Your task to perform on an android device: turn off notifications in google photos Image 0: 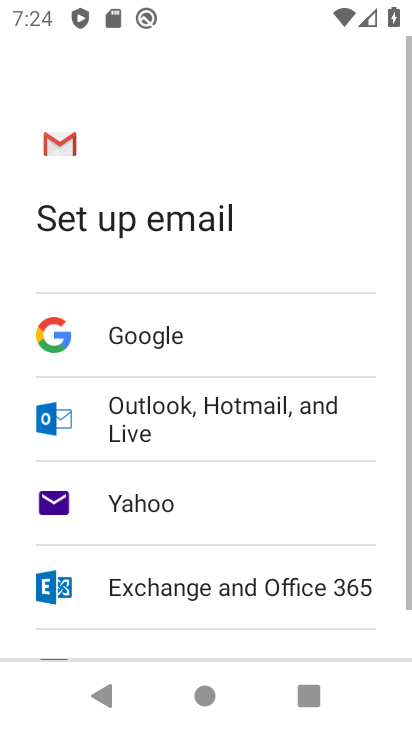
Step 0: press home button
Your task to perform on an android device: turn off notifications in google photos Image 1: 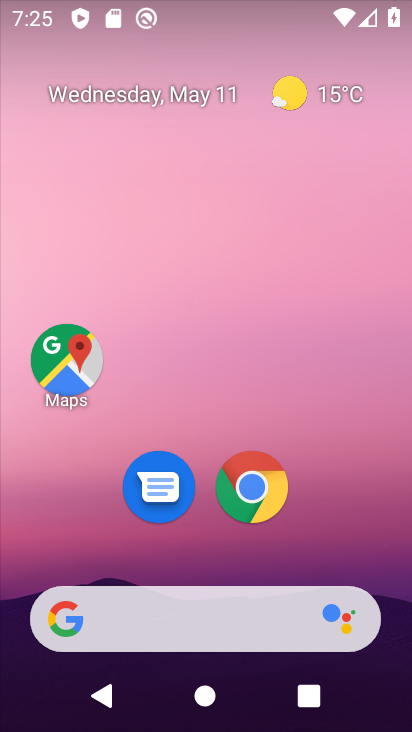
Step 1: drag from (235, 653) to (219, 172)
Your task to perform on an android device: turn off notifications in google photos Image 2: 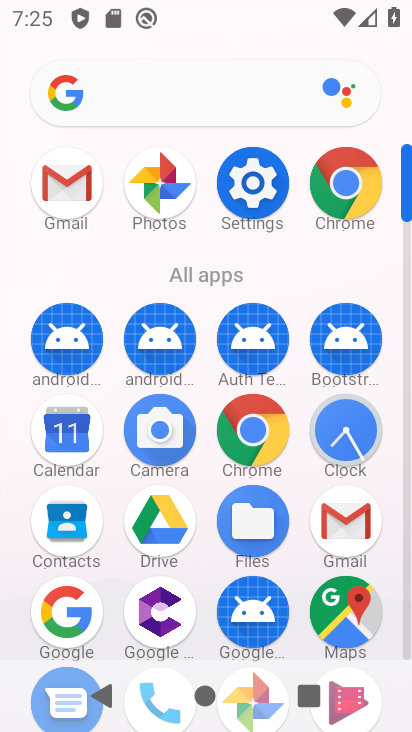
Step 2: click (267, 186)
Your task to perform on an android device: turn off notifications in google photos Image 3: 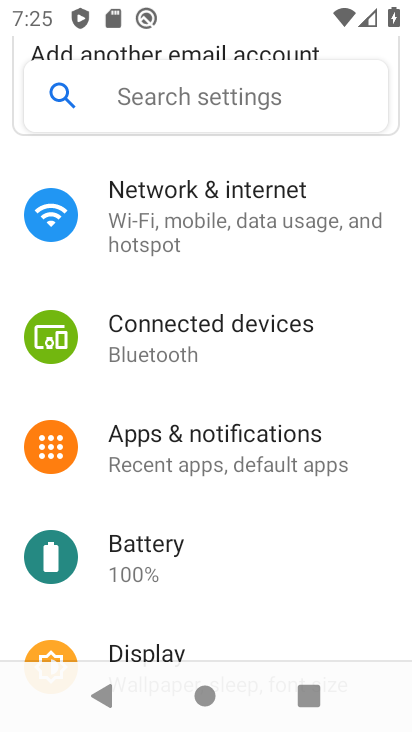
Step 3: press home button
Your task to perform on an android device: turn off notifications in google photos Image 4: 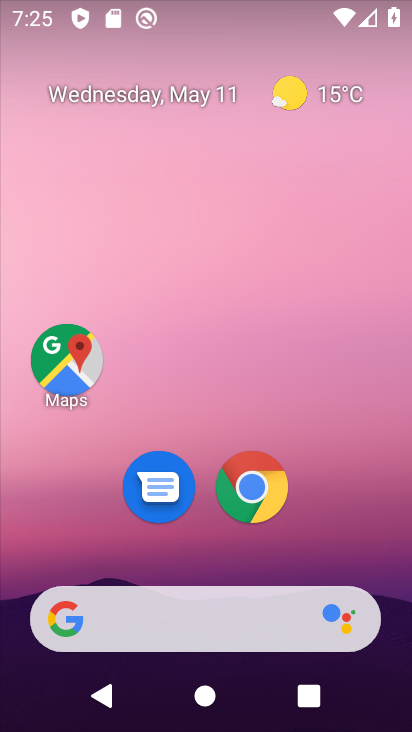
Step 4: drag from (215, 535) to (321, 74)
Your task to perform on an android device: turn off notifications in google photos Image 5: 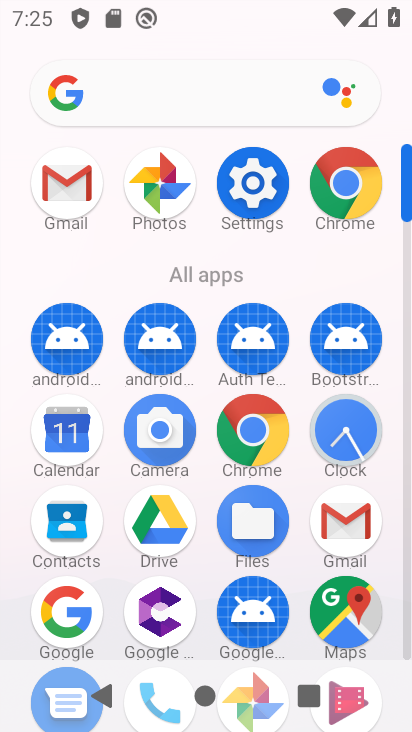
Step 5: drag from (198, 569) to (192, 401)
Your task to perform on an android device: turn off notifications in google photos Image 6: 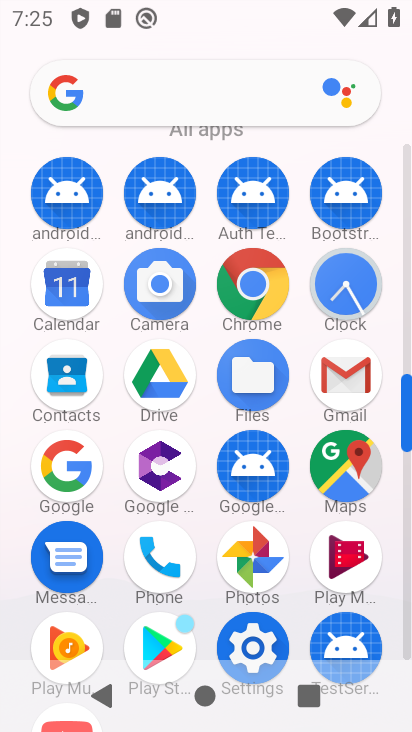
Step 6: click (258, 575)
Your task to perform on an android device: turn off notifications in google photos Image 7: 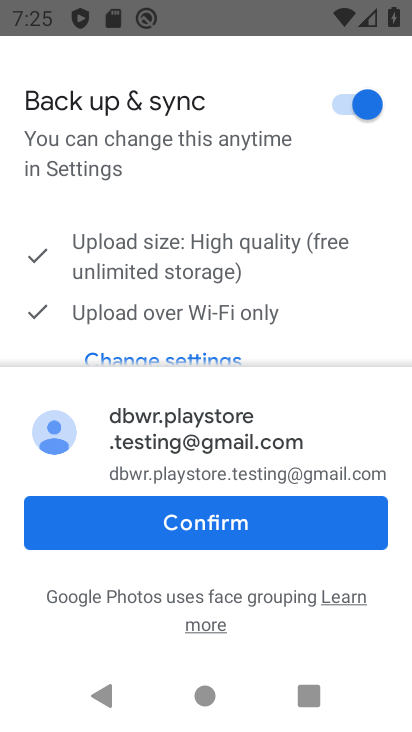
Step 7: click (219, 520)
Your task to perform on an android device: turn off notifications in google photos Image 8: 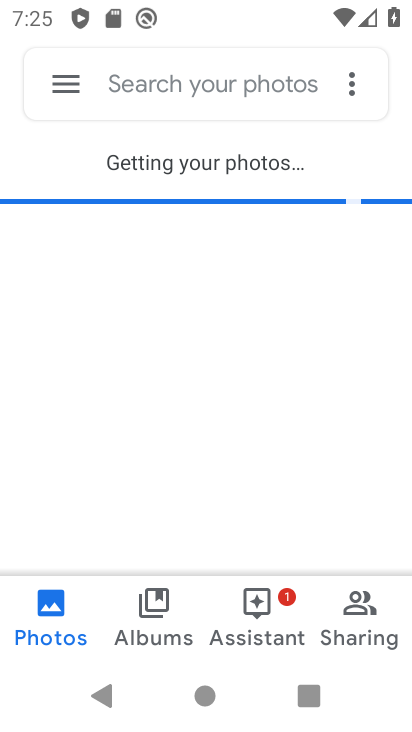
Step 8: click (62, 95)
Your task to perform on an android device: turn off notifications in google photos Image 9: 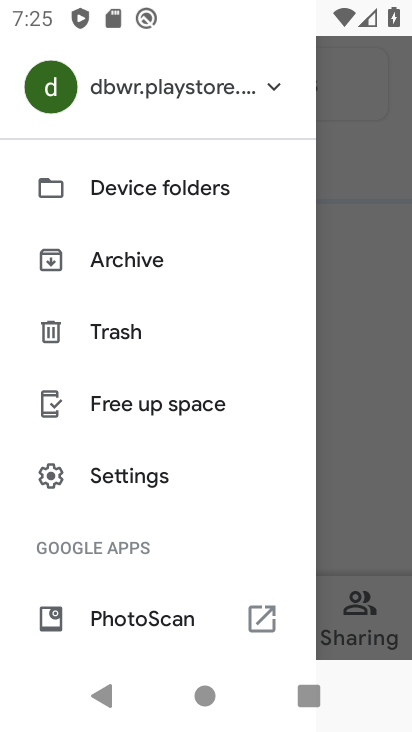
Step 9: click (169, 468)
Your task to perform on an android device: turn off notifications in google photos Image 10: 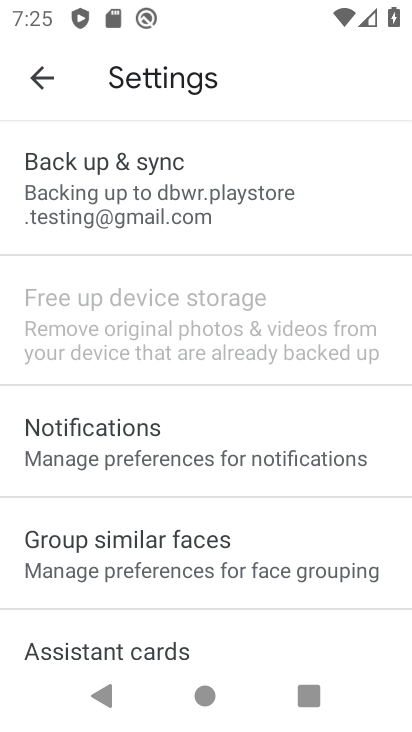
Step 10: click (129, 451)
Your task to perform on an android device: turn off notifications in google photos Image 11: 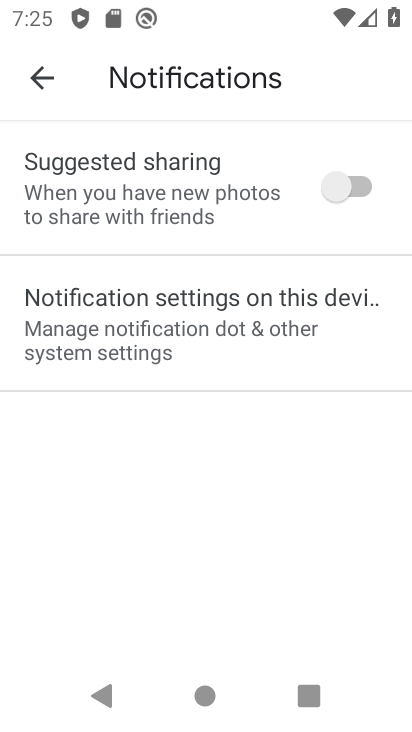
Step 11: click (244, 316)
Your task to perform on an android device: turn off notifications in google photos Image 12: 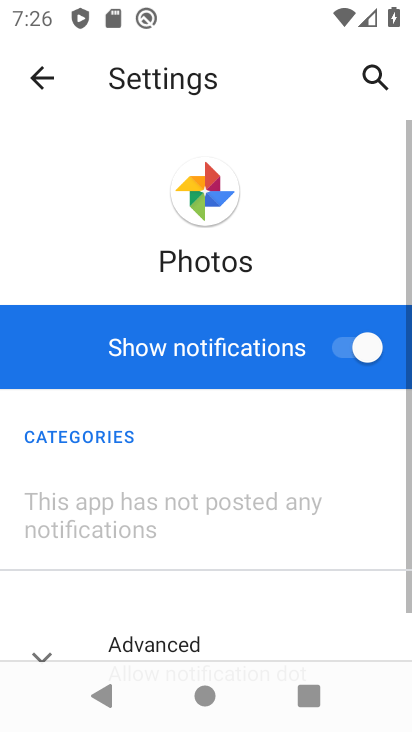
Step 12: click (347, 364)
Your task to perform on an android device: turn off notifications in google photos Image 13: 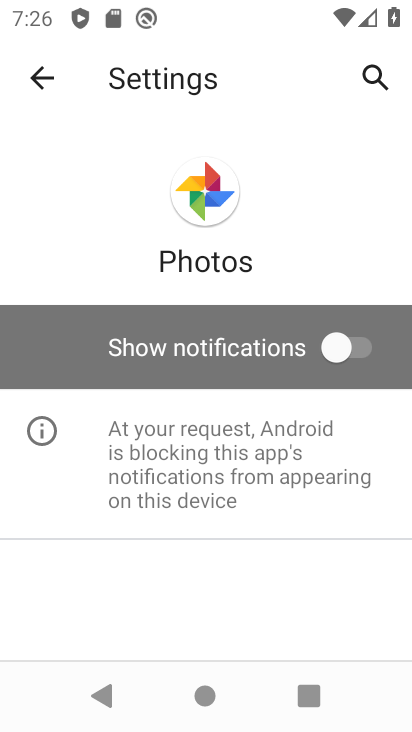
Step 13: task complete